Your task to perform on an android device: Search for seafood restaurants on Google Maps Image 0: 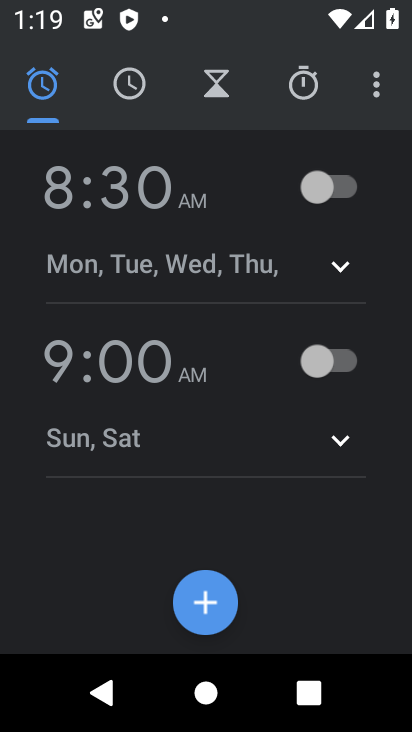
Step 0: press home button
Your task to perform on an android device: Search for seafood restaurants on Google Maps Image 1: 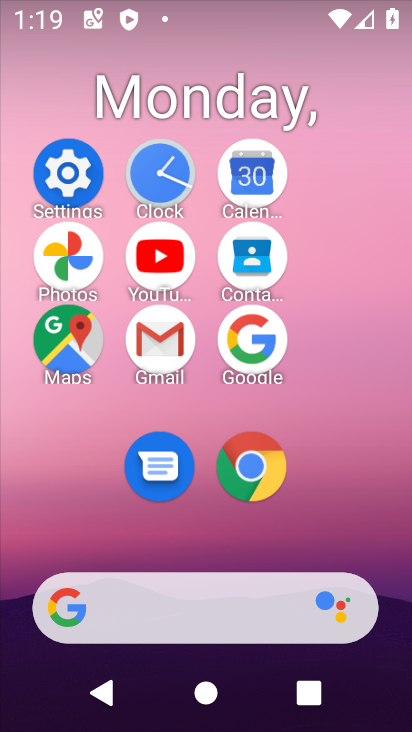
Step 1: click (84, 322)
Your task to perform on an android device: Search for seafood restaurants on Google Maps Image 2: 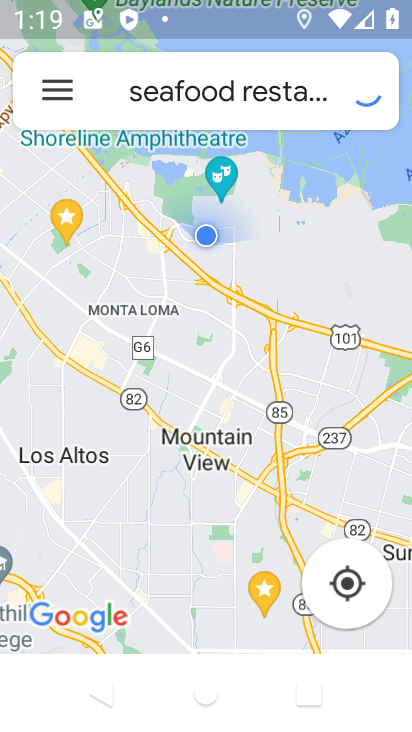
Step 2: task complete